Your task to perform on an android device: Open CNN.com Image 0: 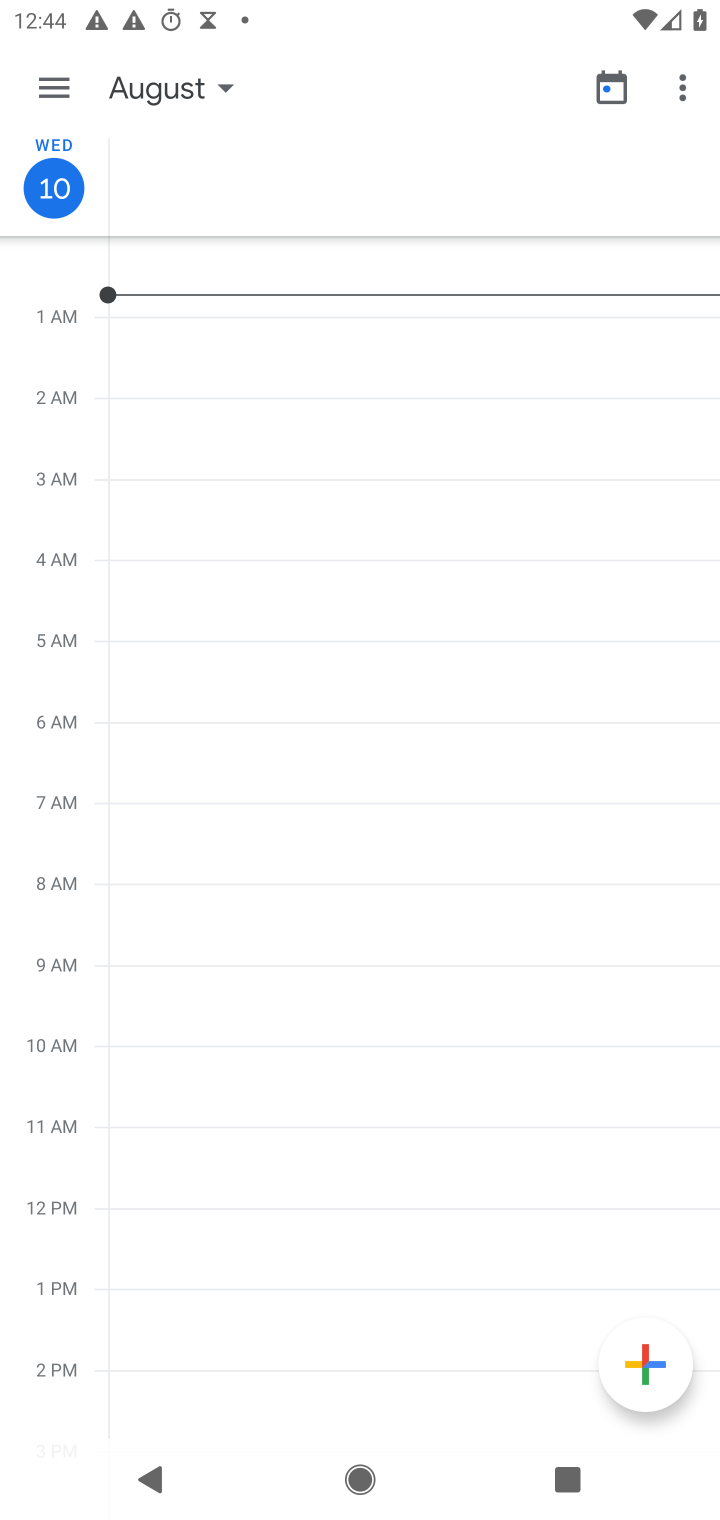
Step 0: press home button
Your task to perform on an android device: Open CNN.com Image 1: 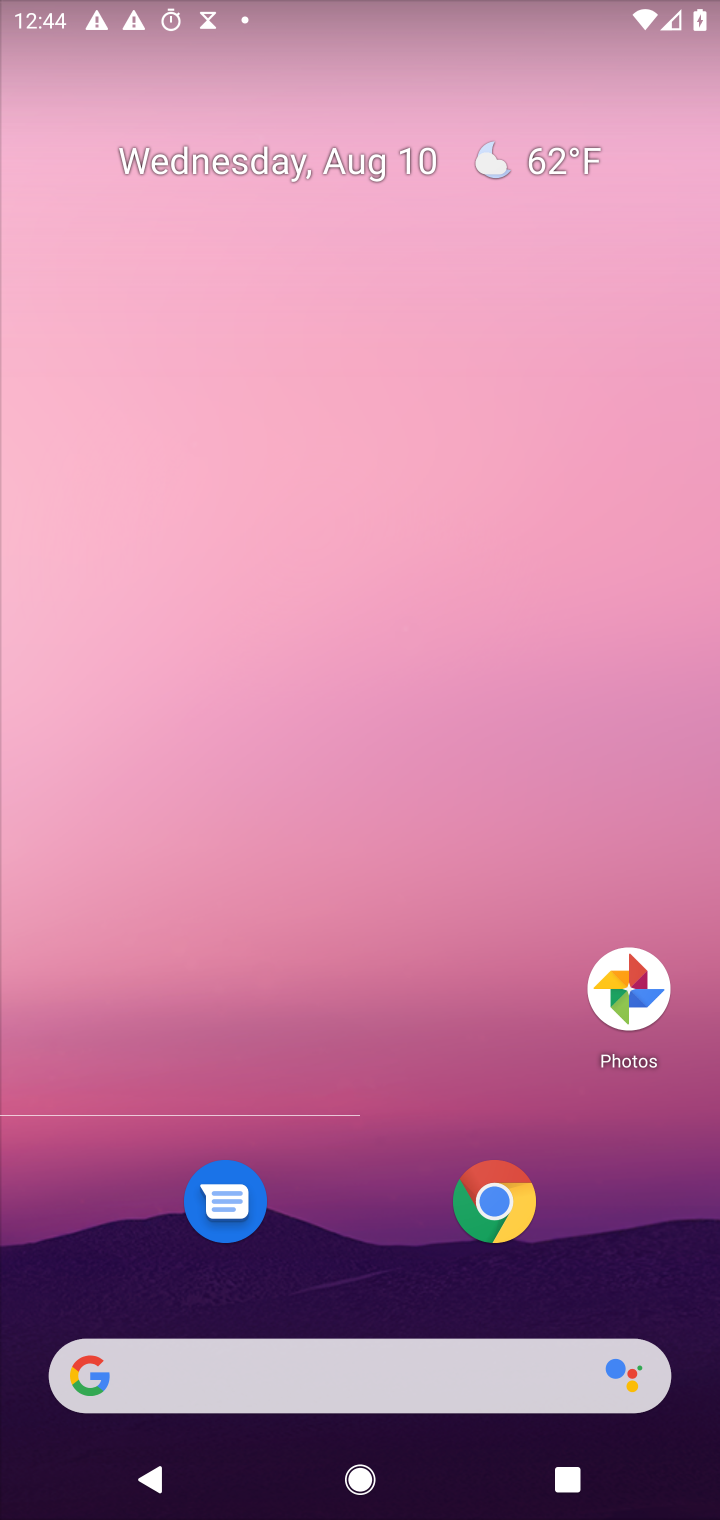
Step 1: click (87, 1386)
Your task to perform on an android device: Open CNN.com Image 2: 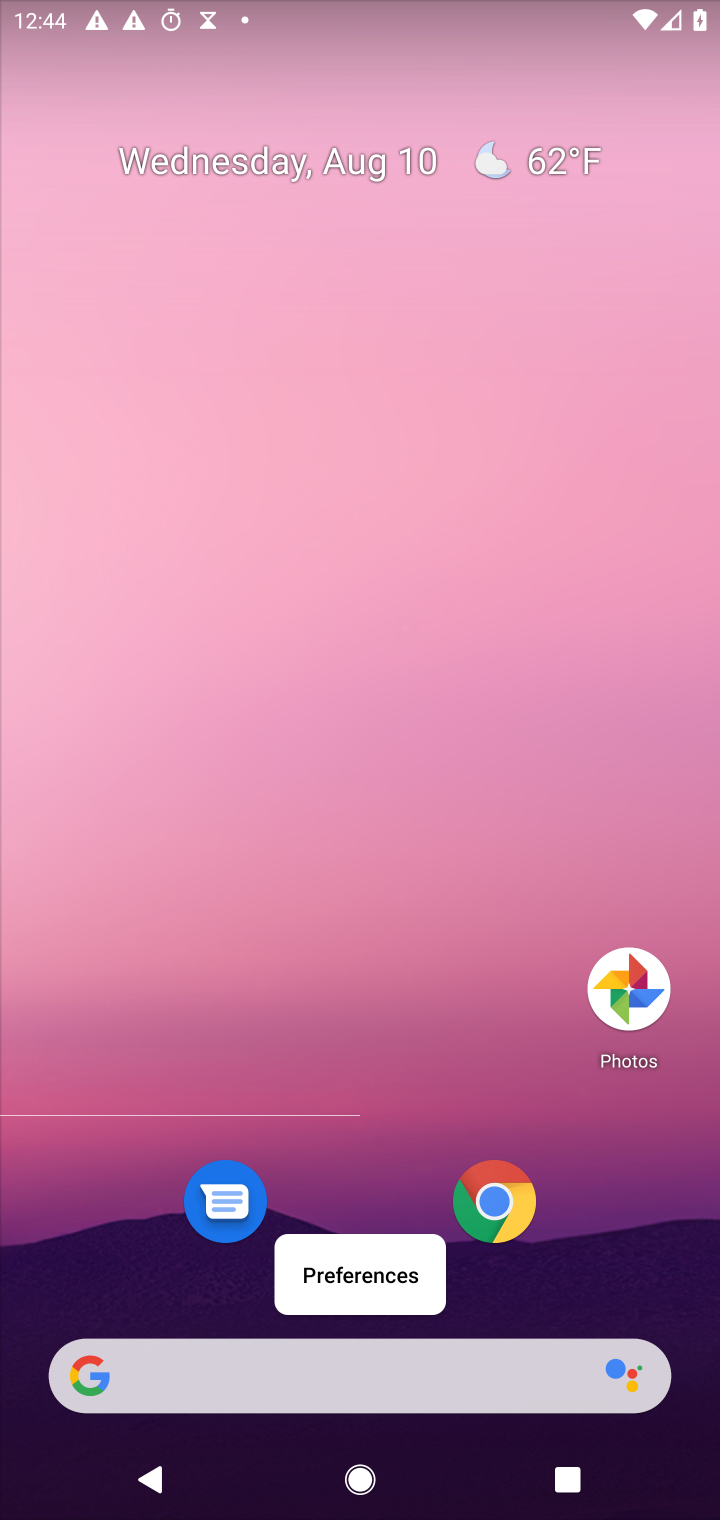
Step 2: click (87, 1386)
Your task to perform on an android device: Open CNN.com Image 3: 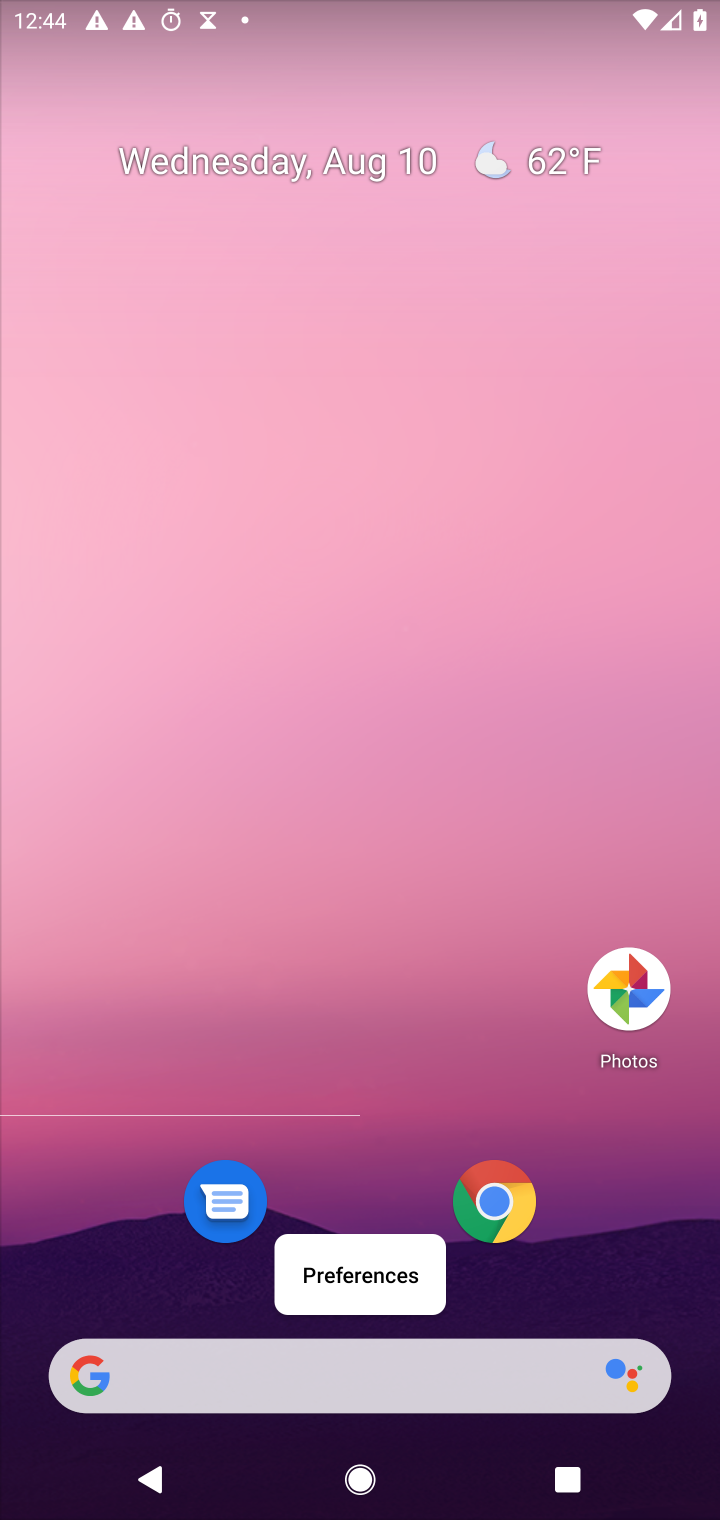
Step 3: drag from (342, 1128) to (397, 218)
Your task to perform on an android device: Open CNN.com Image 4: 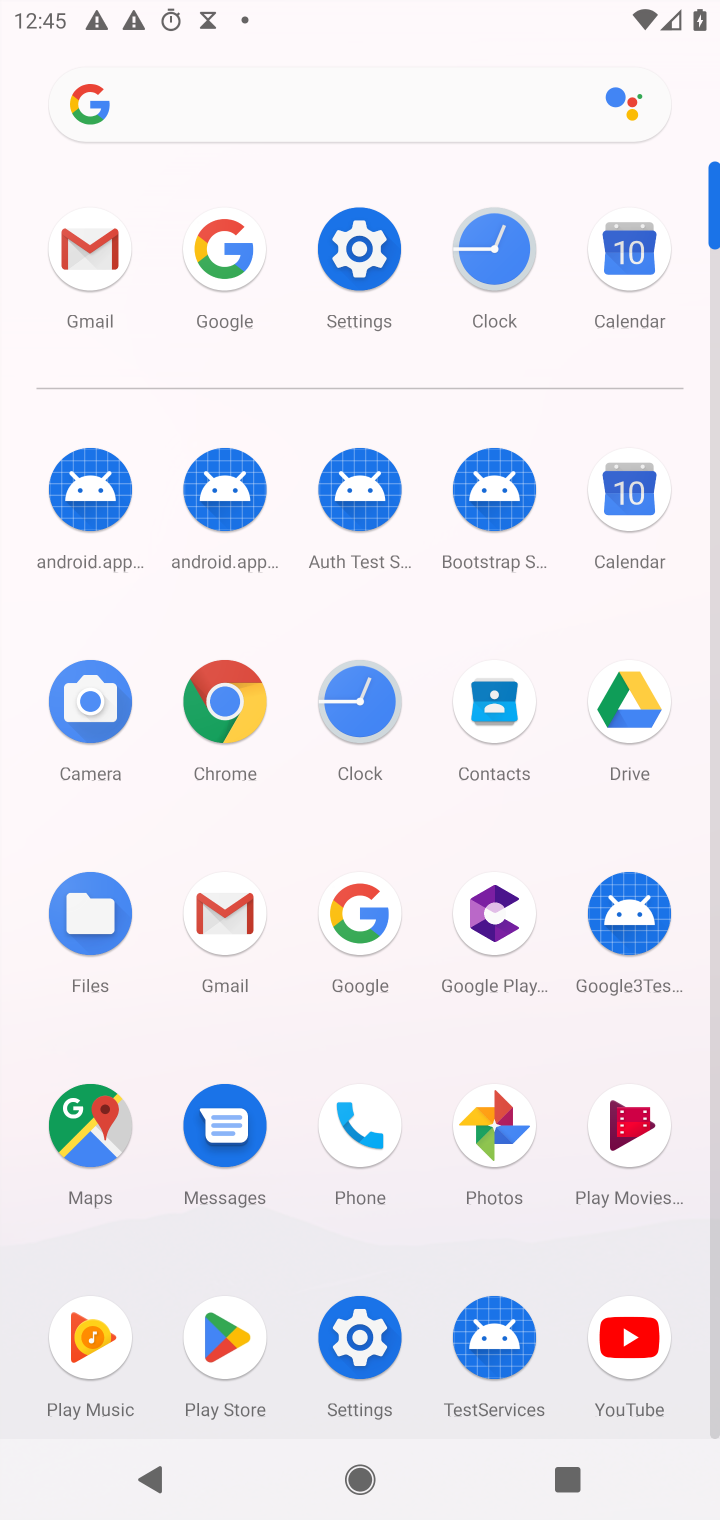
Step 4: click (238, 257)
Your task to perform on an android device: Open CNN.com Image 5: 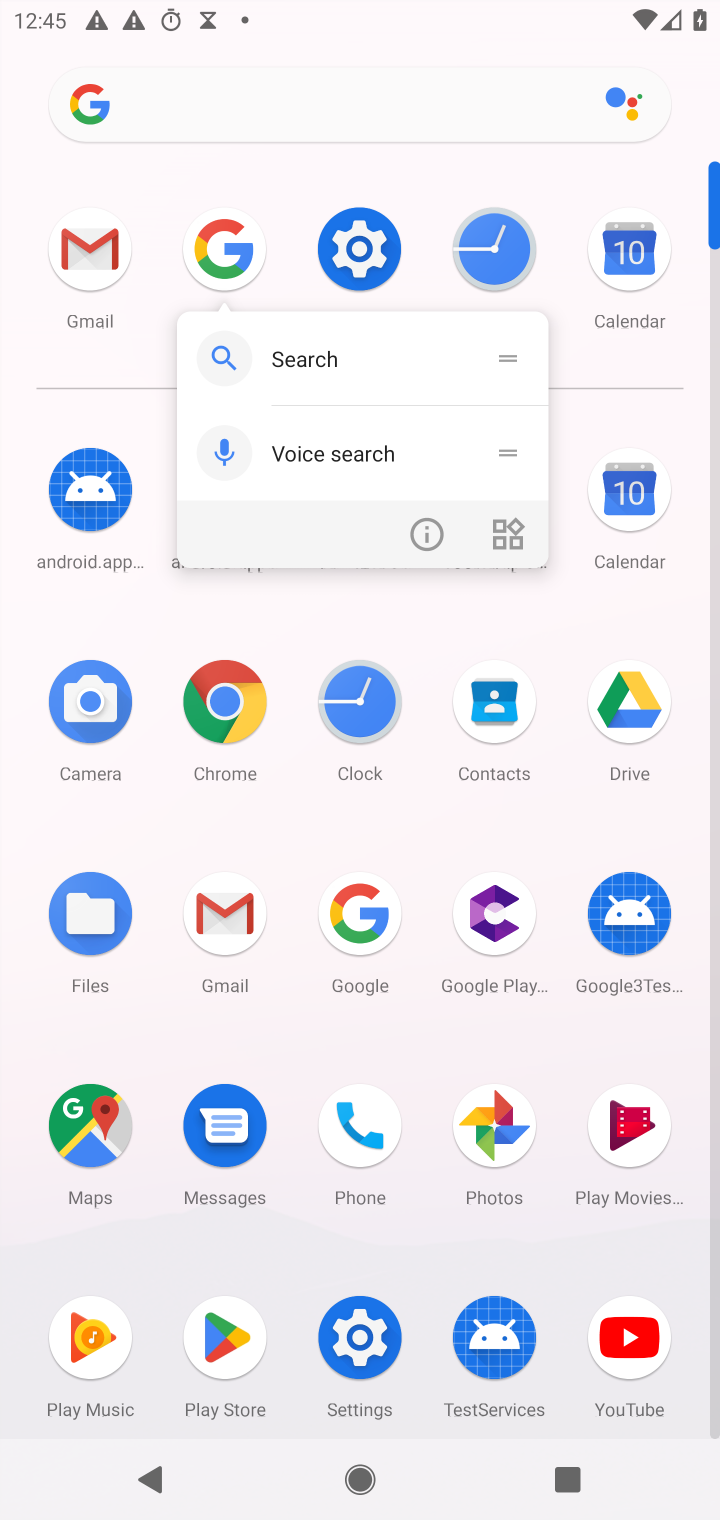
Step 5: click (218, 252)
Your task to perform on an android device: Open CNN.com Image 6: 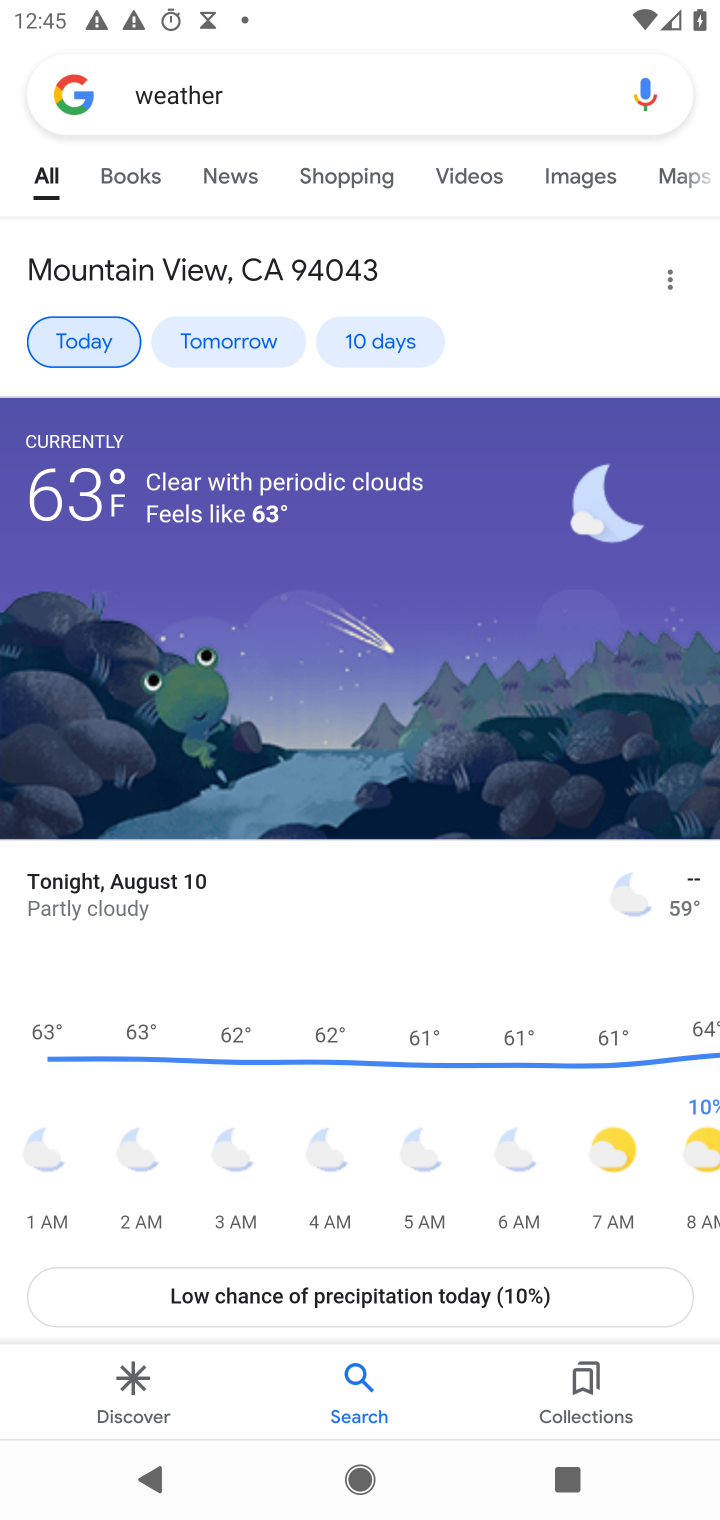
Step 6: click (266, 88)
Your task to perform on an android device: Open CNN.com Image 7: 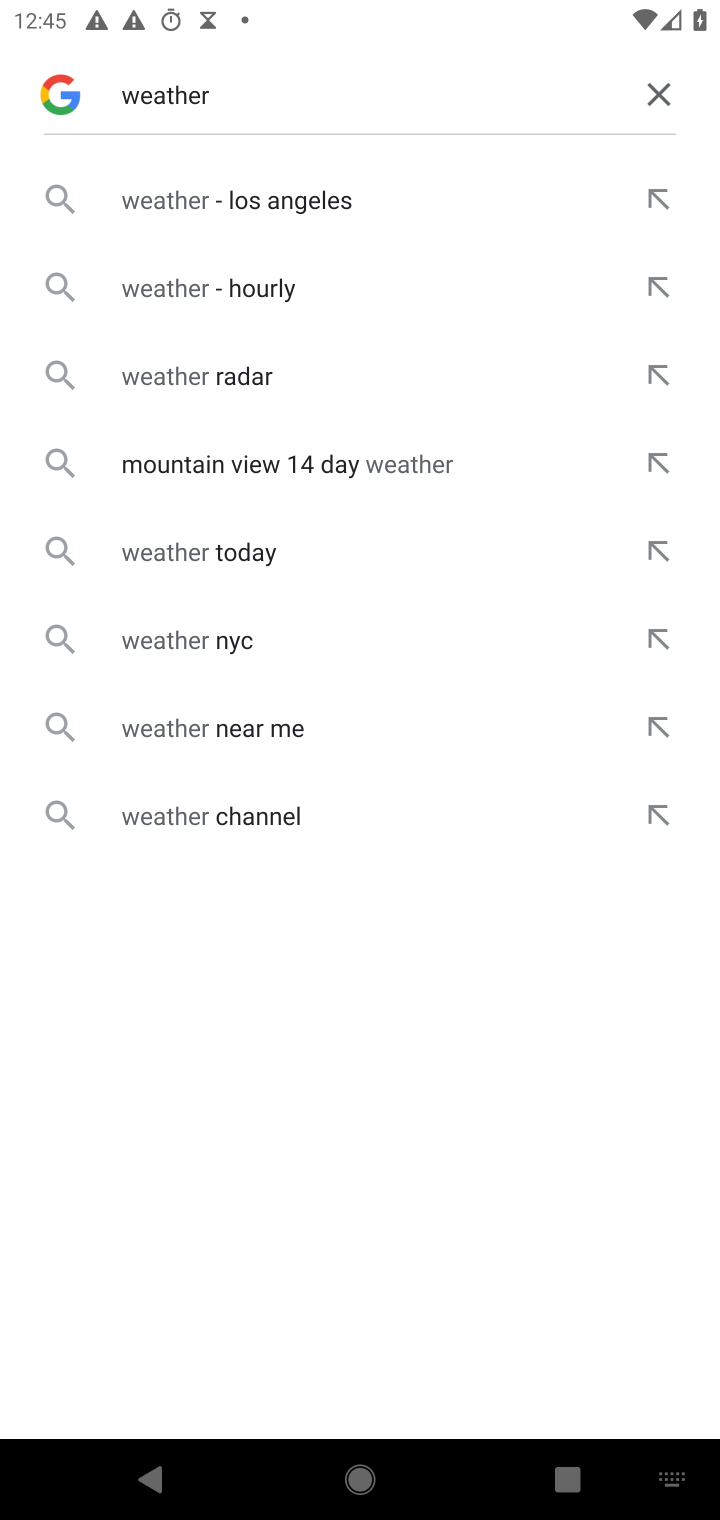
Step 7: click (645, 91)
Your task to perform on an android device: Open CNN.com Image 8: 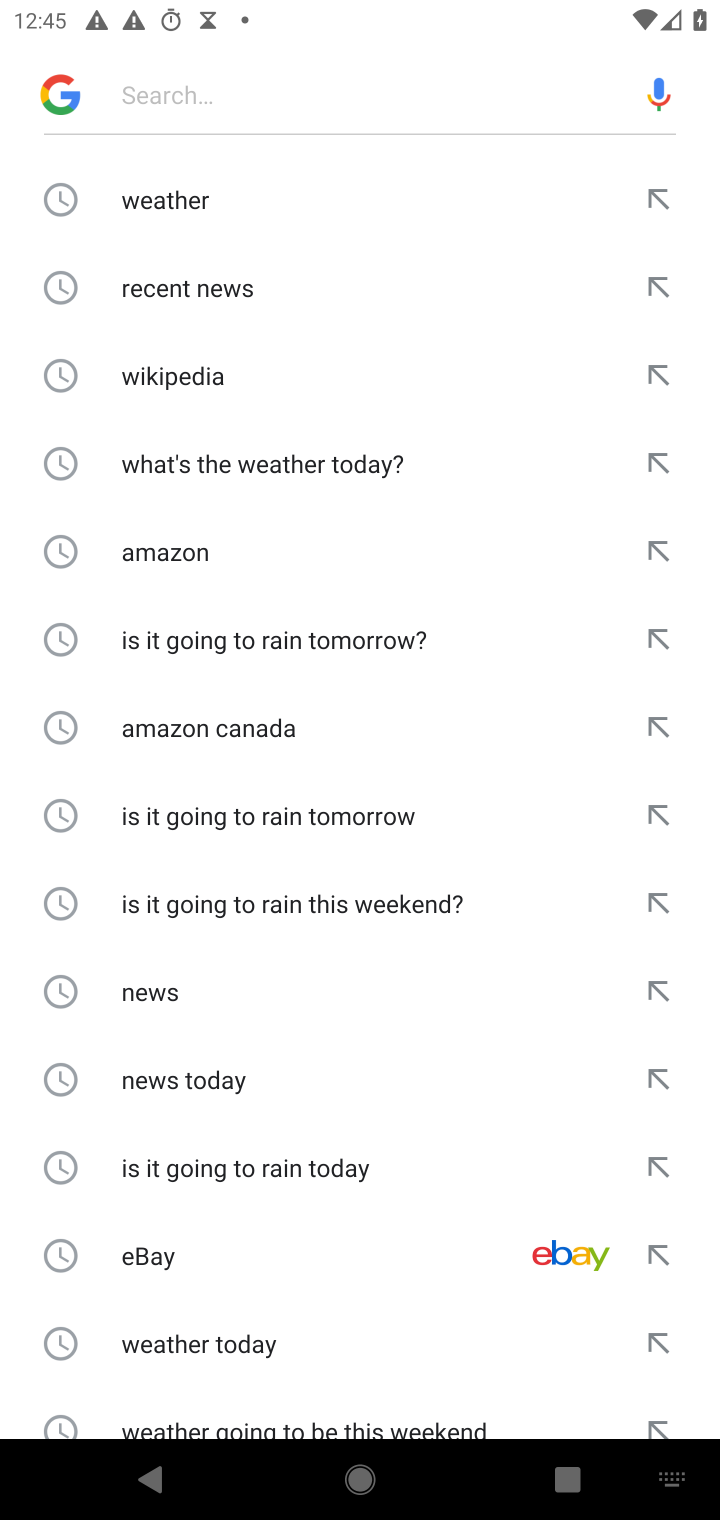
Step 8: type "CNN.com"
Your task to perform on an android device: Open CNN.com Image 9: 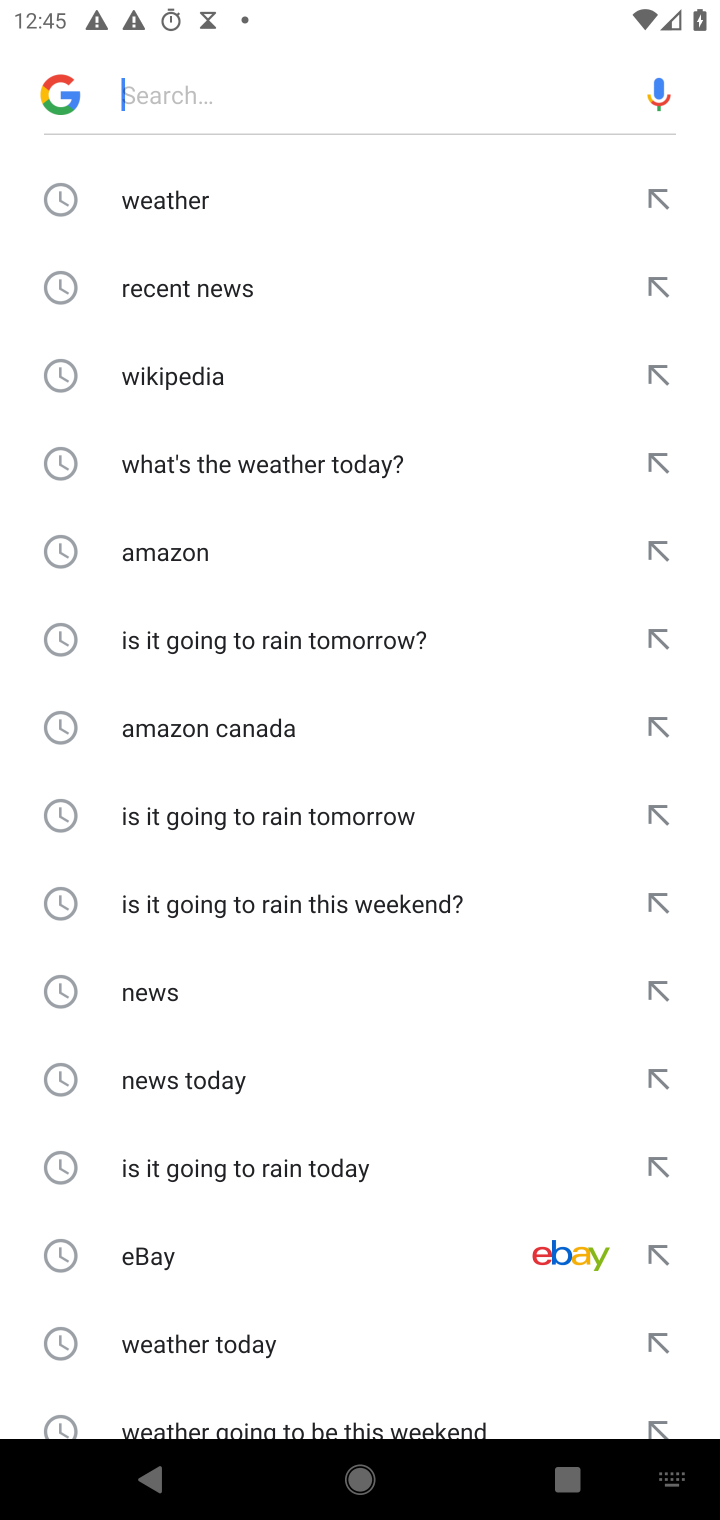
Step 9: click (198, 83)
Your task to perform on an android device: Open CNN.com Image 10: 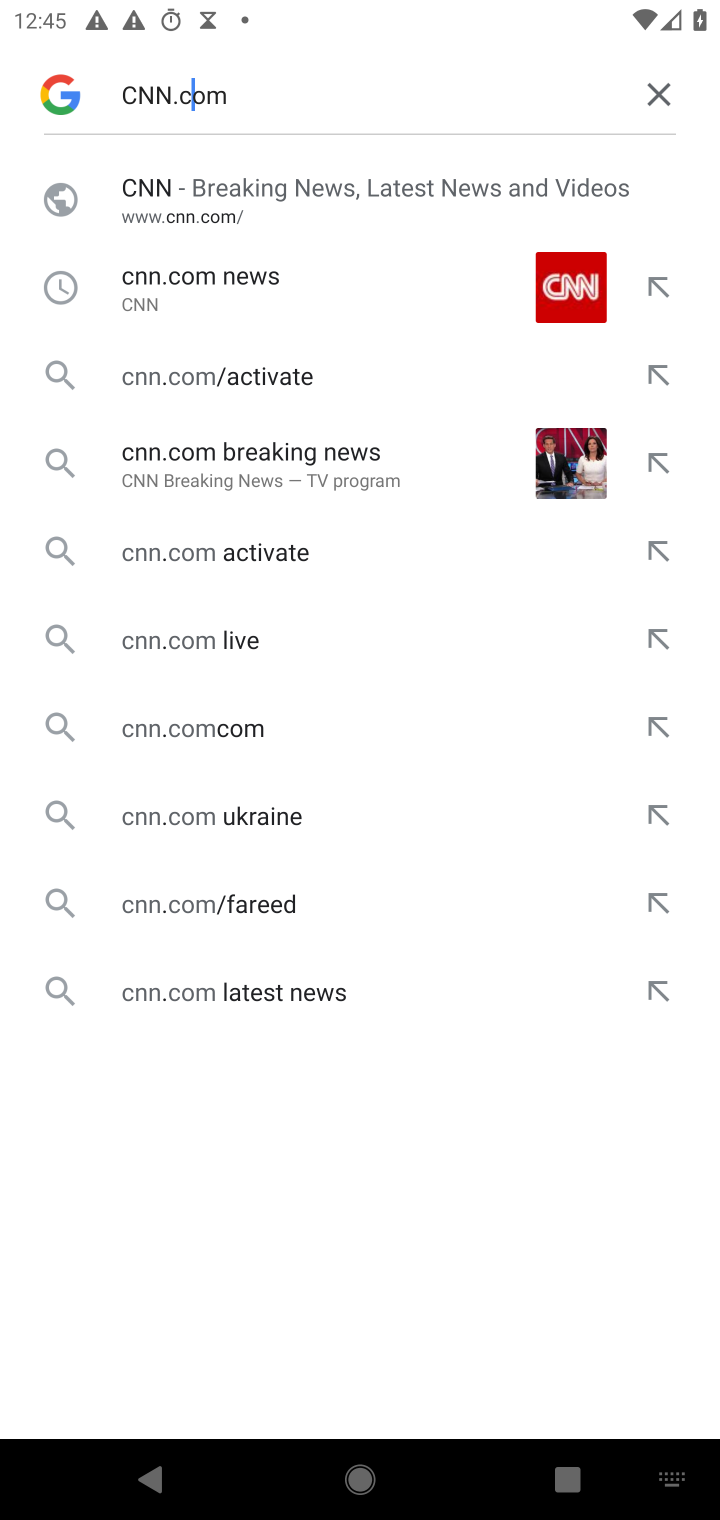
Step 10: press enter
Your task to perform on an android device: Open CNN.com Image 11: 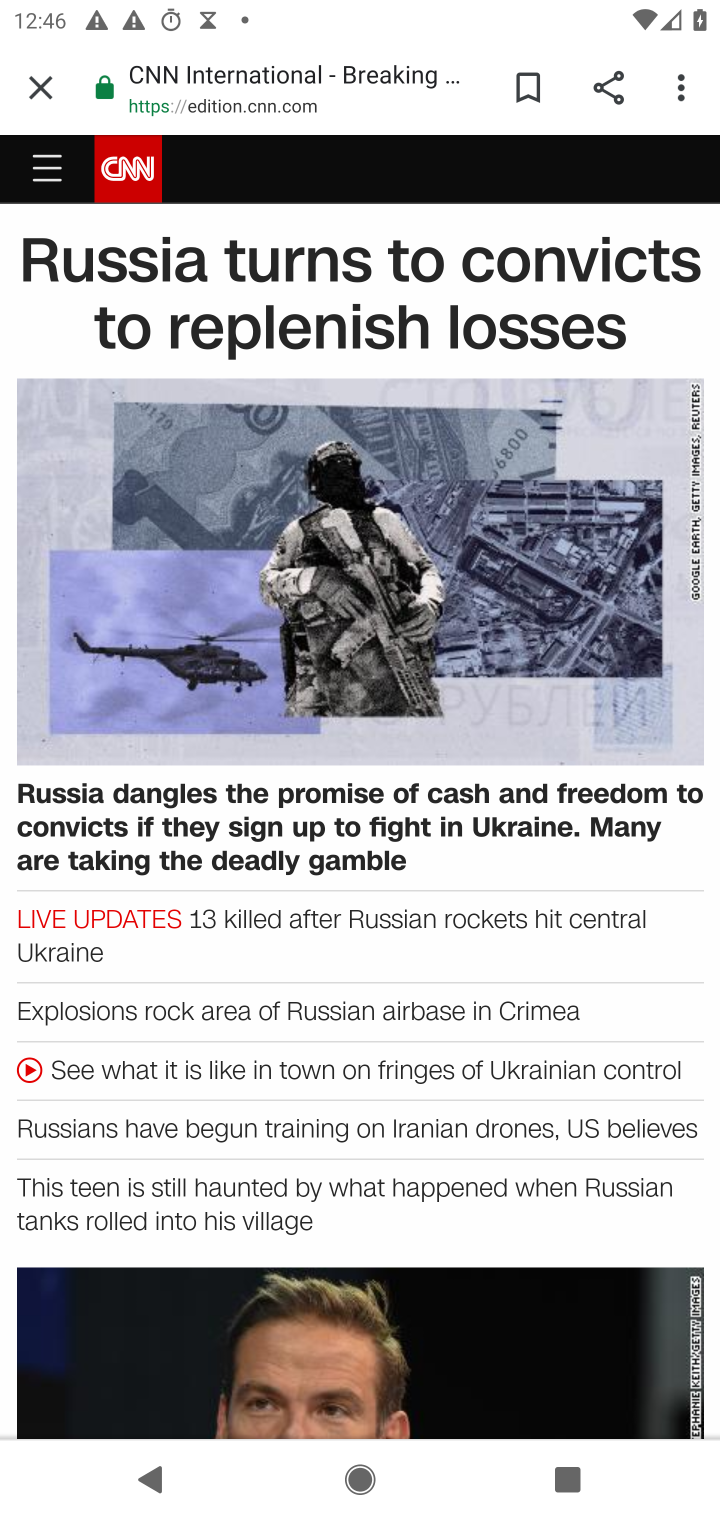
Step 11: task complete